Your task to perform on an android device: choose inbox layout in the gmail app Image 0: 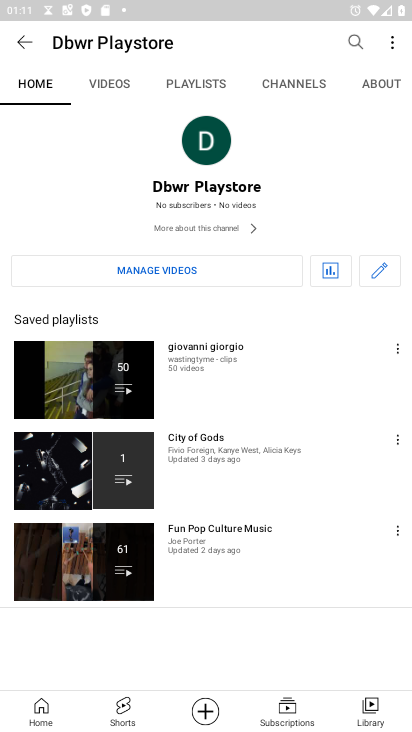
Step 0: press home button
Your task to perform on an android device: choose inbox layout in the gmail app Image 1: 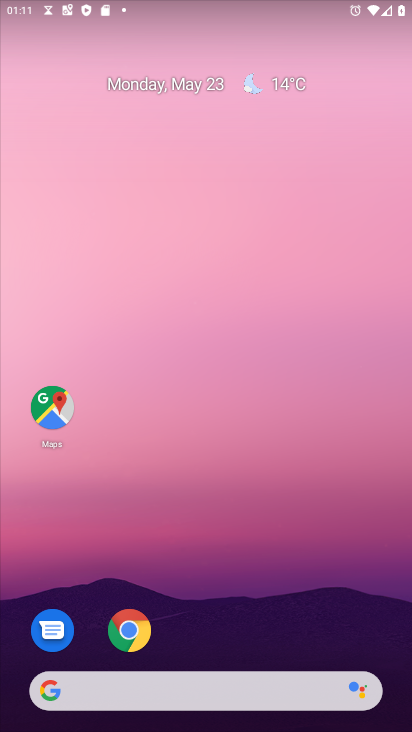
Step 1: drag from (273, 469) to (169, 5)
Your task to perform on an android device: choose inbox layout in the gmail app Image 2: 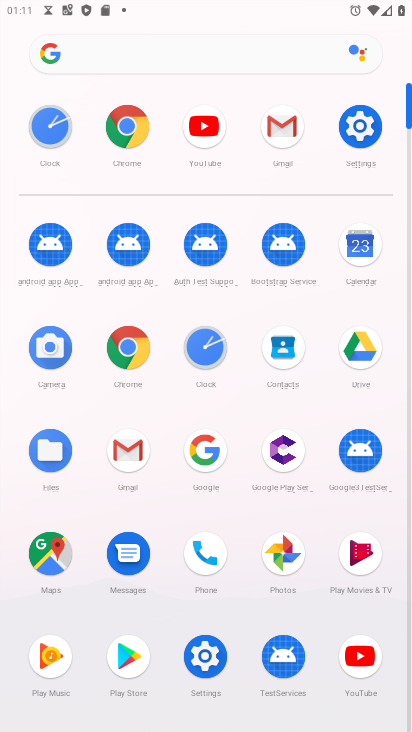
Step 2: click (138, 452)
Your task to perform on an android device: choose inbox layout in the gmail app Image 3: 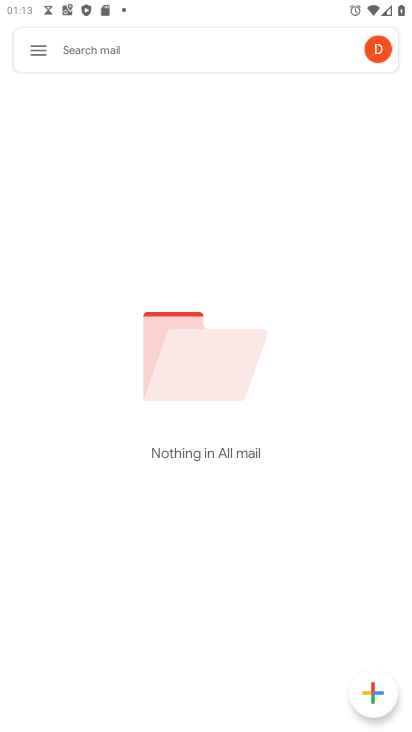
Step 3: click (34, 45)
Your task to perform on an android device: choose inbox layout in the gmail app Image 4: 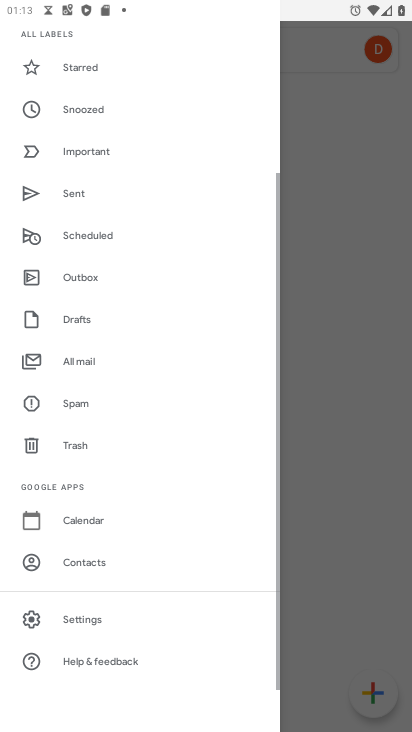
Step 4: click (160, 619)
Your task to perform on an android device: choose inbox layout in the gmail app Image 5: 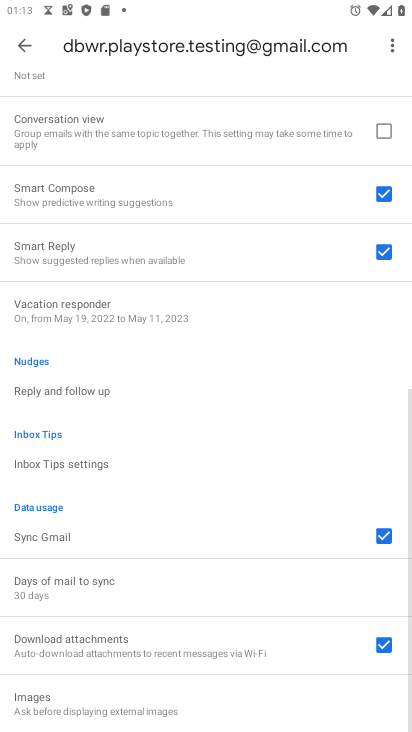
Step 5: drag from (145, 161) to (180, 722)
Your task to perform on an android device: choose inbox layout in the gmail app Image 6: 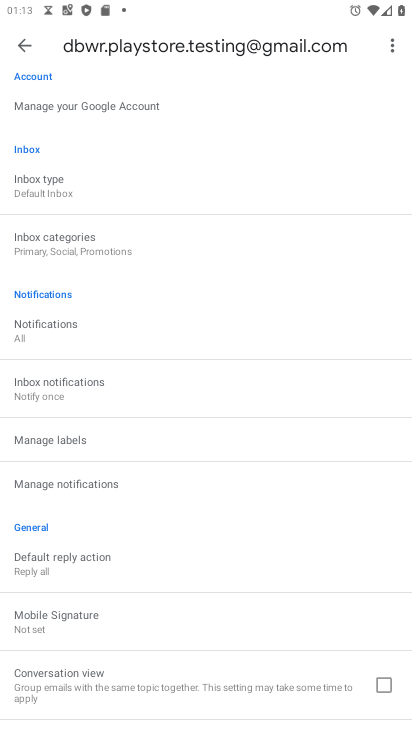
Step 6: click (89, 192)
Your task to perform on an android device: choose inbox layout in the gmail app Image 7: 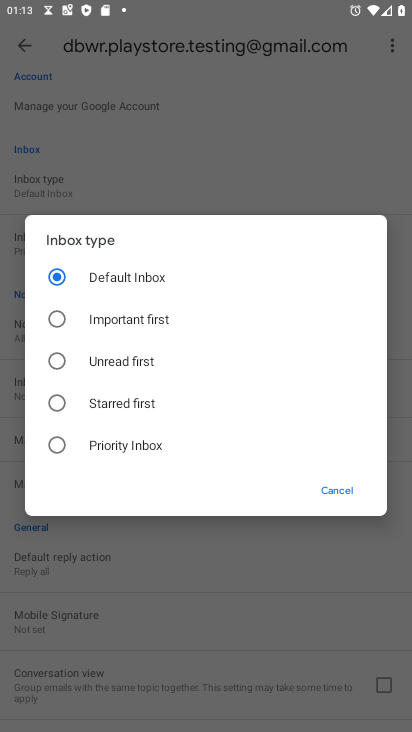
Step 7: click (140, 321)
Your task to perform on an android device: choose inbox layout in the gmail app Image 8: 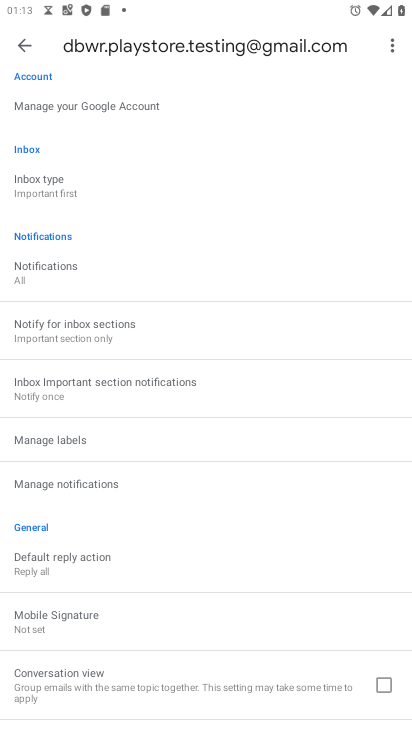
Step 8: task complete